Your task to perform on an android device: Open settings on Google Maps Image 0: 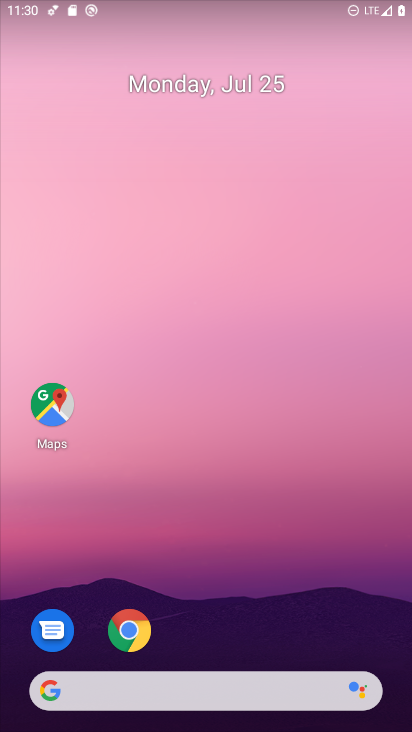
Step 0: click (55, 407)
Your task to perform on an android device: Open settings on Google Maps Image 1: 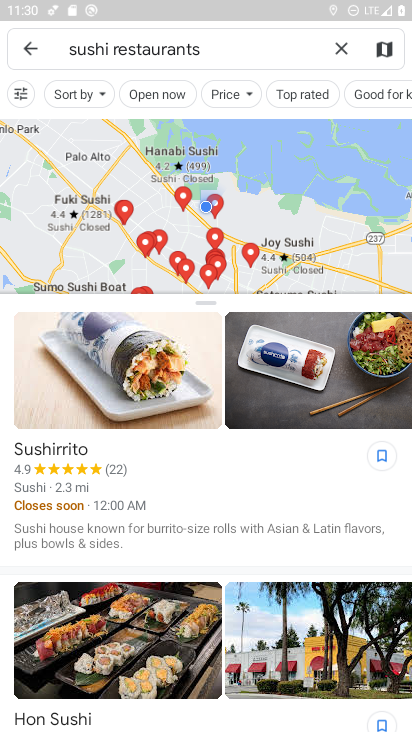
Step 1: click (348, 53)
Your task to perform on an android device: Open settings on Google Maps Image 2: 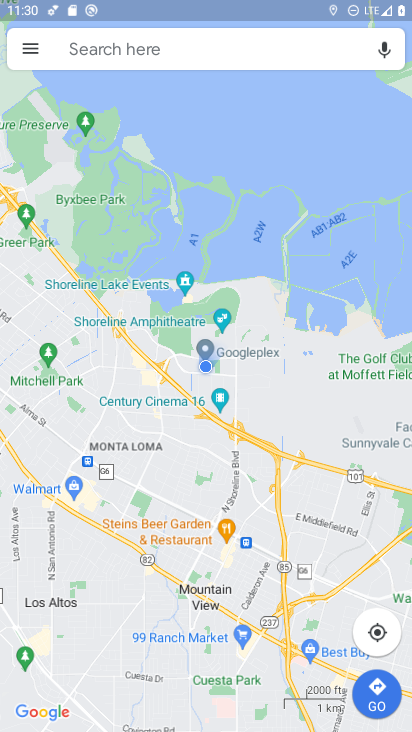
Step 2: click (28, 51)
Your task to perform on an android device: Open settings on Google Maps Image 3: 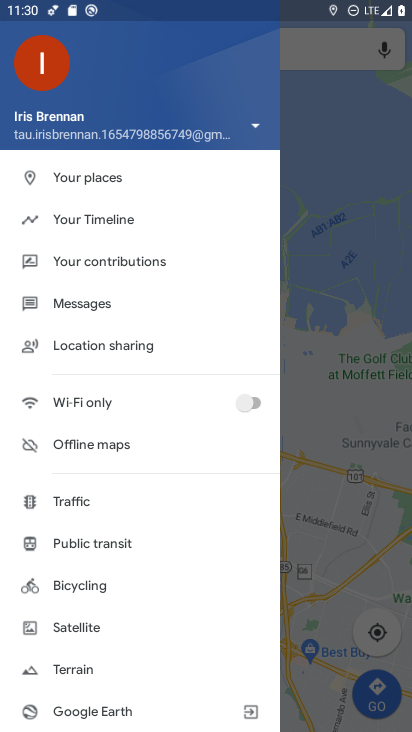
Step 3: drag from (149, 641) to (137, 403)
Your task to perform on an android device: Open settings on Google Maps Image 4: 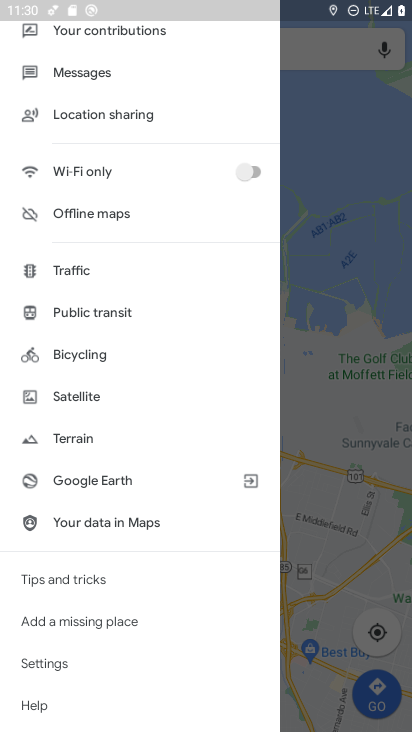
Step 4: click (45, 668)
Your task to perform on an android device: Open settings on Google Maps Image 5: 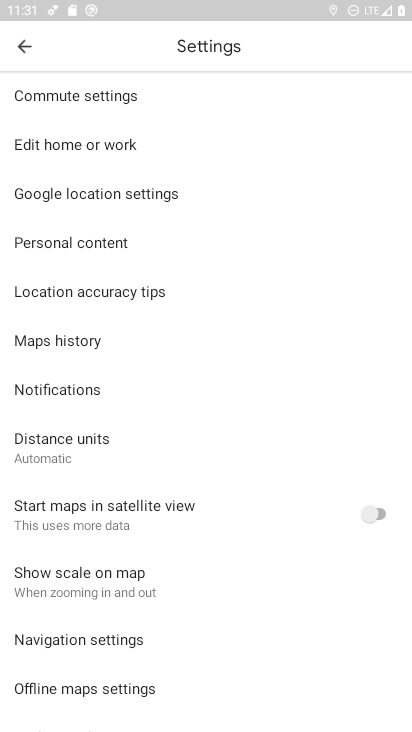
Step 5: task complete